Your task to perform on an android device: toggle javascript in the chrome app Image 0: 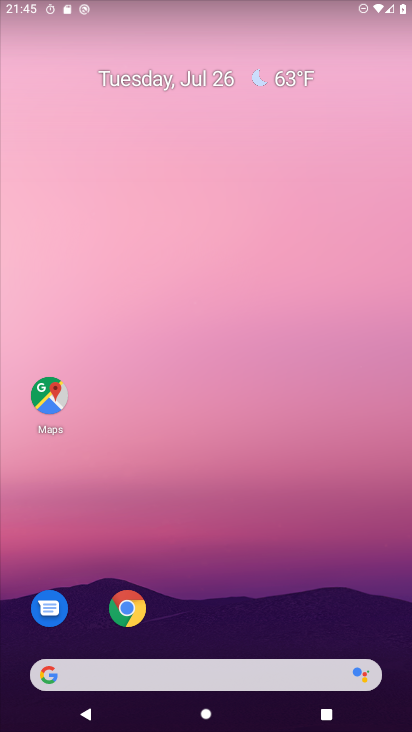
Step 0: click (134, 609)
Your task to perform on an android device: toggle javascript in the chrome app Image 1: 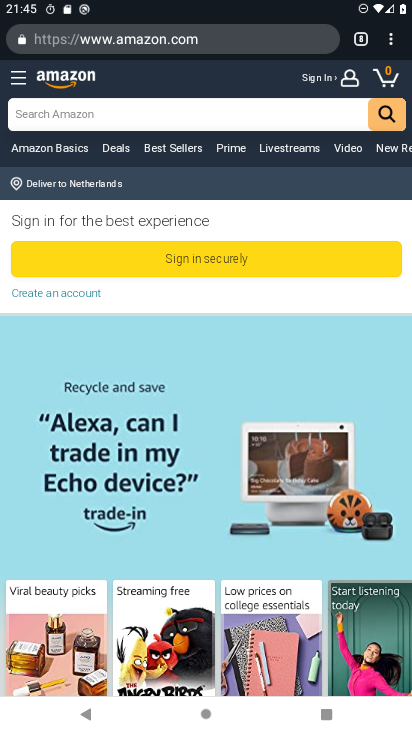
Step 1: click (387, 44)
Your task to perform on an android device: toggle javascript in the chrome app Image 2: 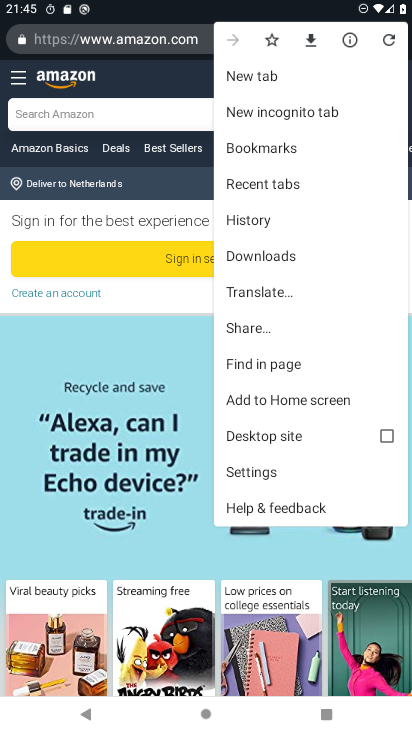
Step 2: click (255, 471)
Your task to perform on an android device: toggle javascript in the chrome app Image 3: 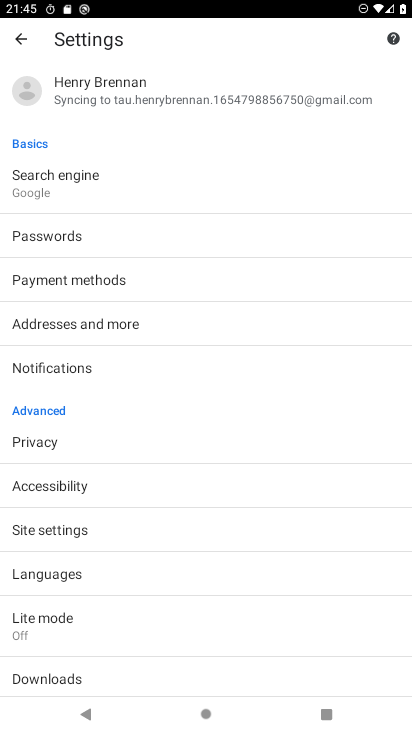
Step 3: click (67, 535)
Your task to perform on an android device: toggle javascript in the chrome app Image 4: 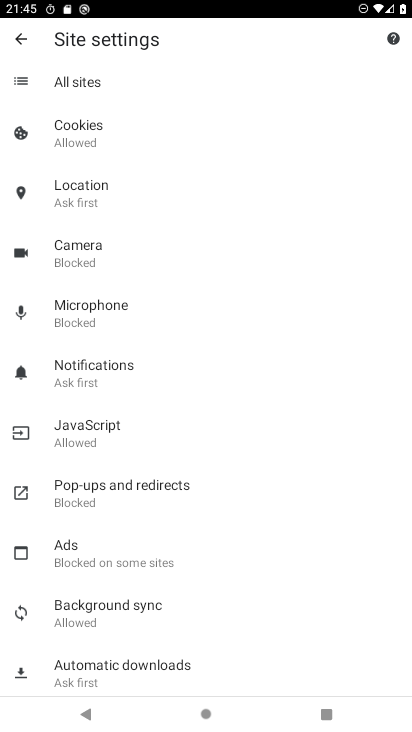
Step 4: click (85, 426)
Your task to perform on an android device: toggle javascript in the chrome app Image 5: 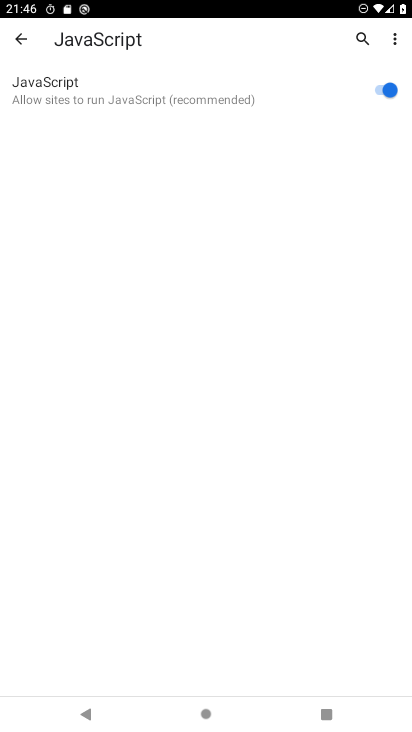
Step 5: task complete